Your task to perform on an android device: search for starred emails in the gmail app Image 0: 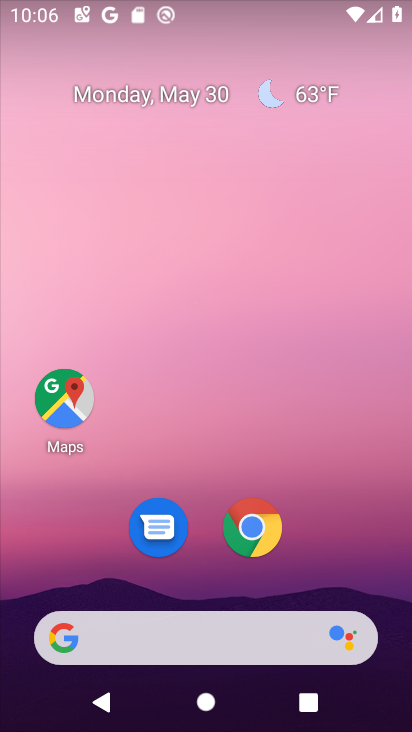
Step 0: drag from (320, 577) to (284, 183)
Your task to perform on an android device: search for starred emails in the gmail app Image 1: 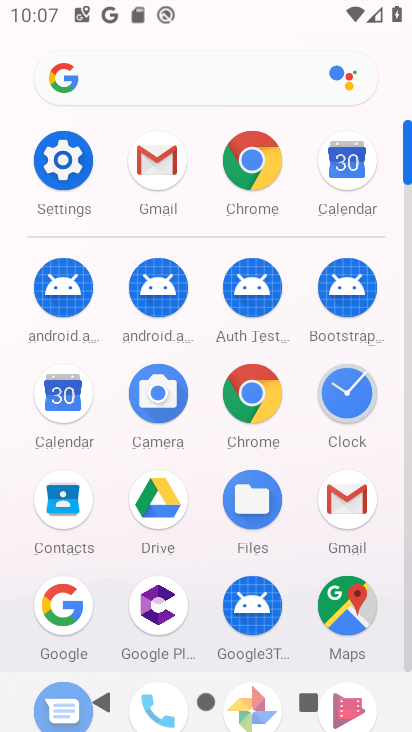
Step 1: drag from (111, 551) to (123, 389)
Your task to perform on an android device: search for starred emails in the gmail app Image 2: 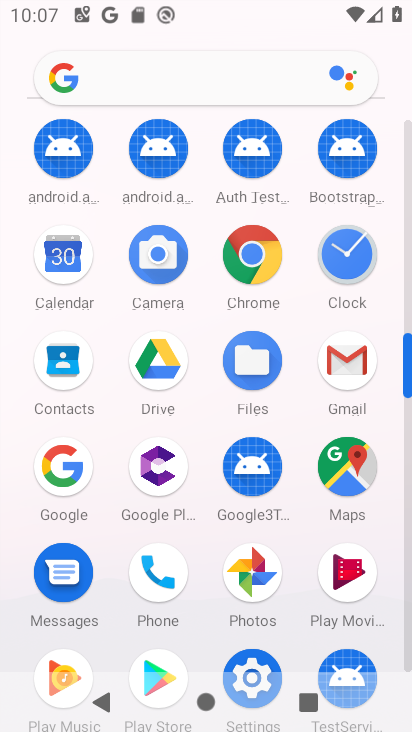
Step 2: drag from (117, 255) to (101, 635)
Your task to perform on an android device: search for starred emails in the gmail app Image 3: 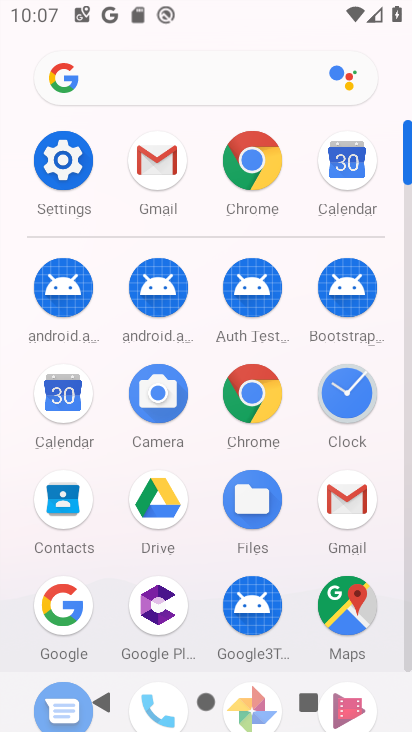
Step 3: click (153, 152)
Your task to perform on an android device: search for starred emails in the gmail app Image 4: 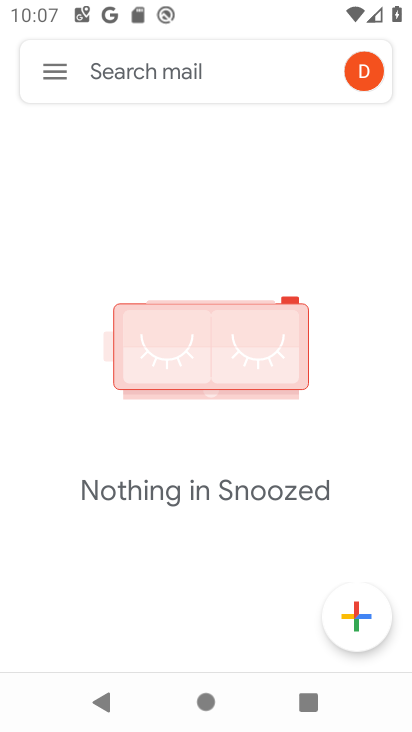
Step 4: click (51, 60)
Your task to perform on an android device: search for starred emails in the gmail app Image 5: 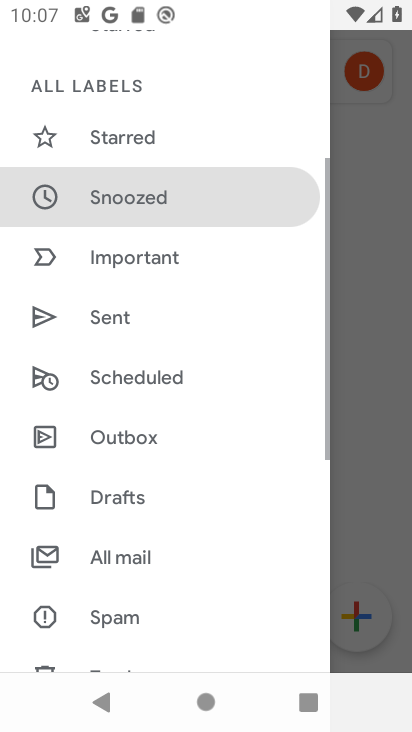
Step 5: click (142, 145)
Your task to perform on an android device: search for starred emails in the gmail app Image 6: 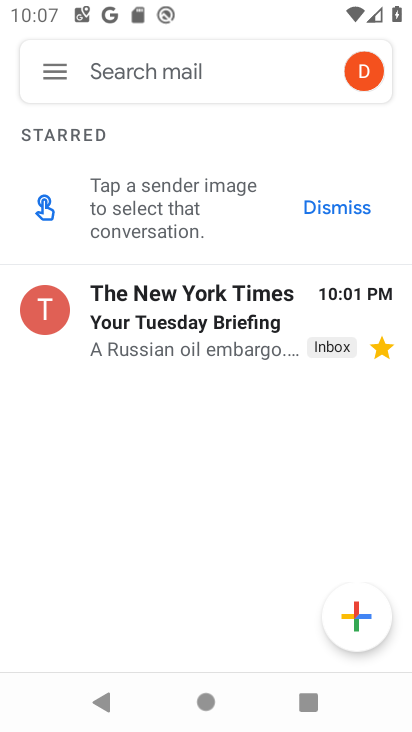
Step 6: task complete